Your task to perform on an android device: Search for pizza restaurants on Maps Image 0: 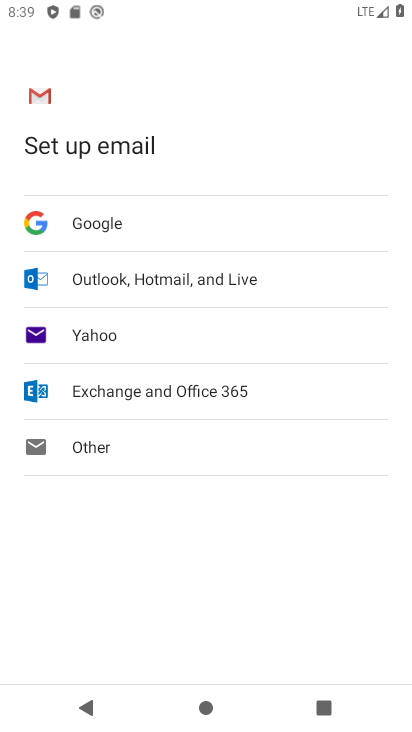
Step 0: press home button
Your task to perform on an android device: Search for pizza restaurants on Maps Image 1: 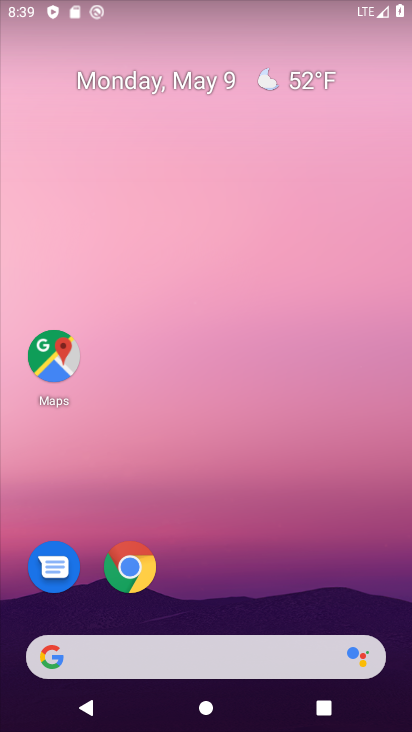
Step 1: click (61, 359)
Your task to perform on an android device: Search for pizza restaurants on Maps Image 2: 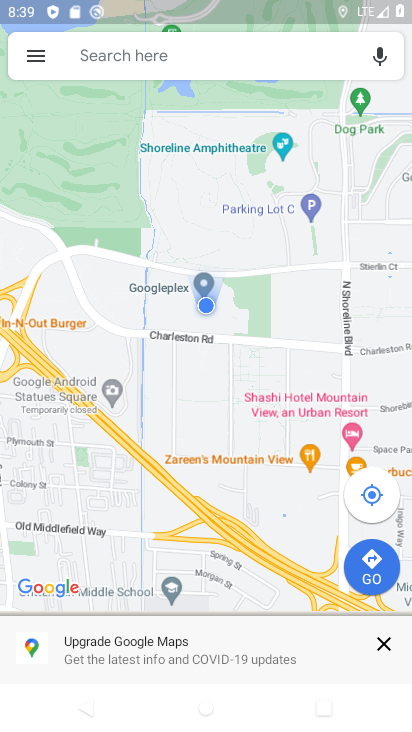
Step 2: click (195, 54)
Your task to perform on an android device: Search for pizza restaurants on Maps Image 3: 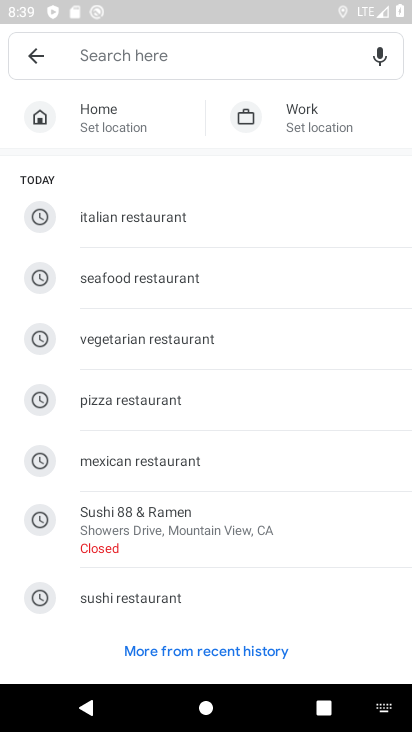
Step 3: type "pizza restaurant"
Your task to perform on an android device: Search for pizza restaurants on Maps Image 4: 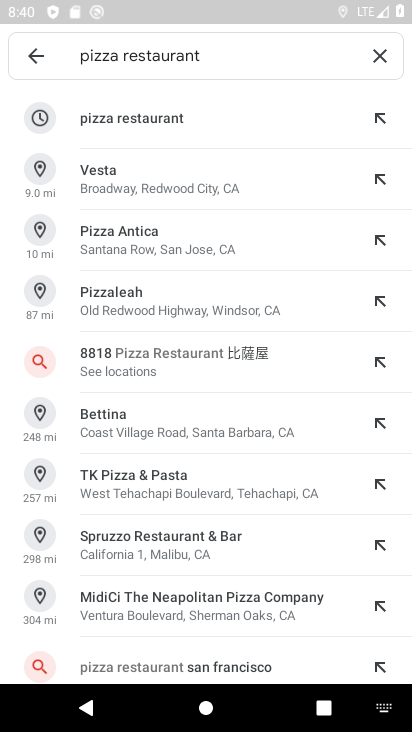
Step 4: click (170, 113)
Your task to perform on an android device: Search for pizza restaurants on Maps Image 5: 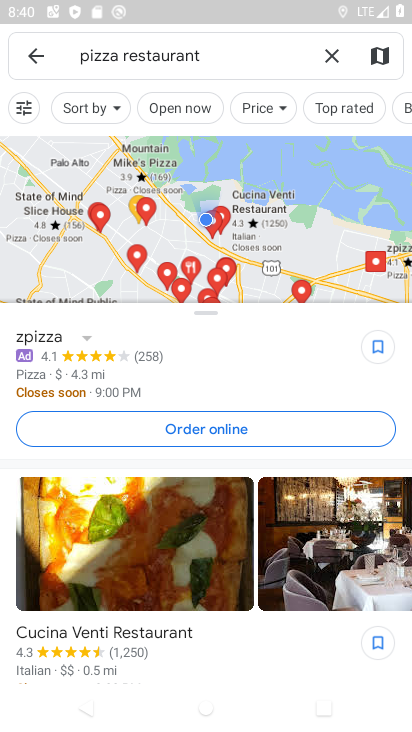
Step 5: task complete